Your task to perform on an android device: Open the calendar app, open the side menu, and click the "Day" option Image 0: 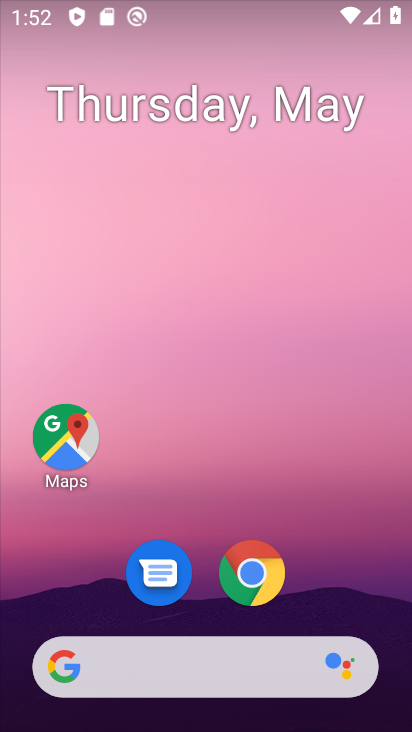
Step 0: drag from (110, 455) to (193, 82)
Your task to perform on an android device: Open the calendar app, open the side menu, and click the "Day" option Image 1: 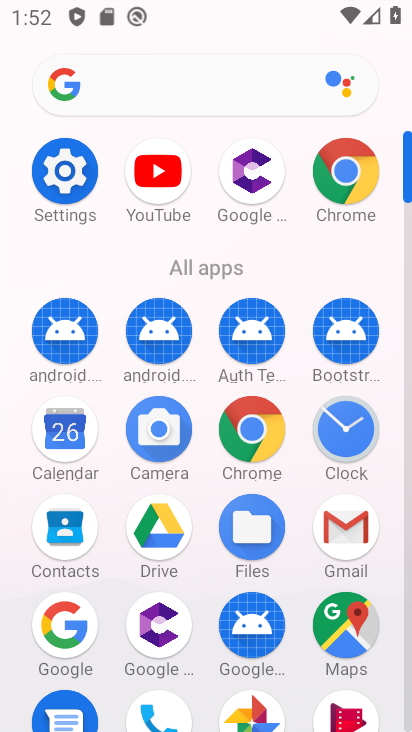
Step 1: click (74, 453)
Your task to perform on an android device: Open the calendar app, open the side menu, and click the "Day" option Image 2: 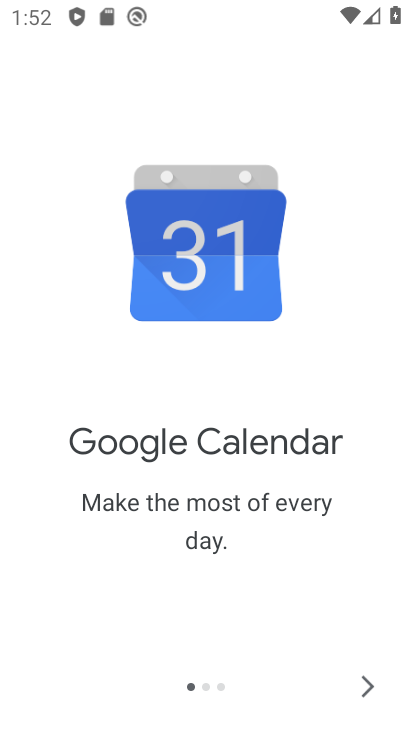
Step 2: click (377, 704)
Your task to perform on an android device: Open the calendar app, open the side menu, and click the "Day" option Image 3: 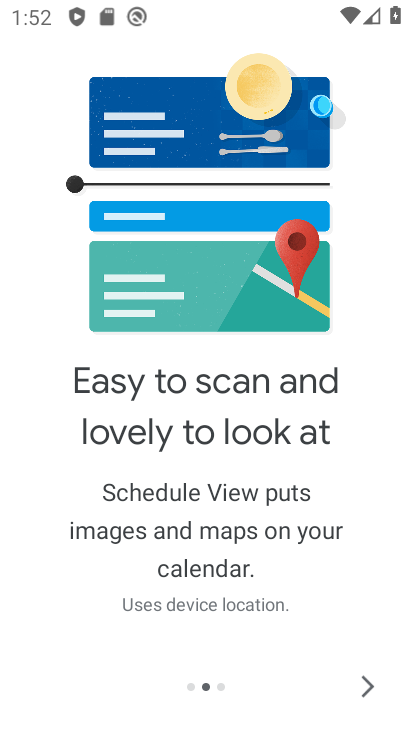
Step 3: click (362, 680)
Your task to perform on an android device: Open the calendar app, open the side menu, and click the "Day" option Image 4: 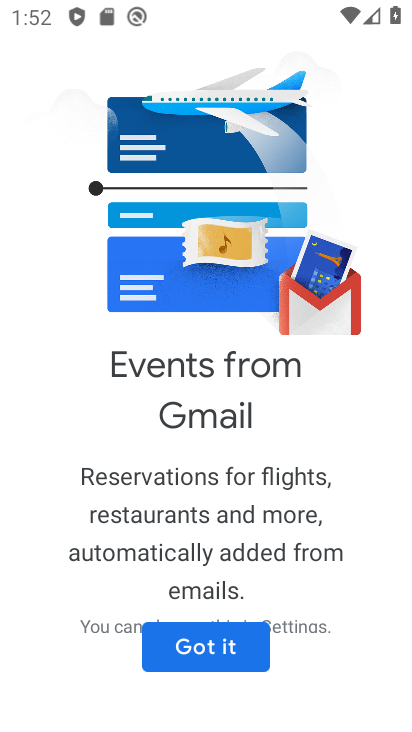
Step 4: click (222, 659)
Your task to perform on an android device: Open the calendar app, open the side menu, and click the "Day" option Image 5: 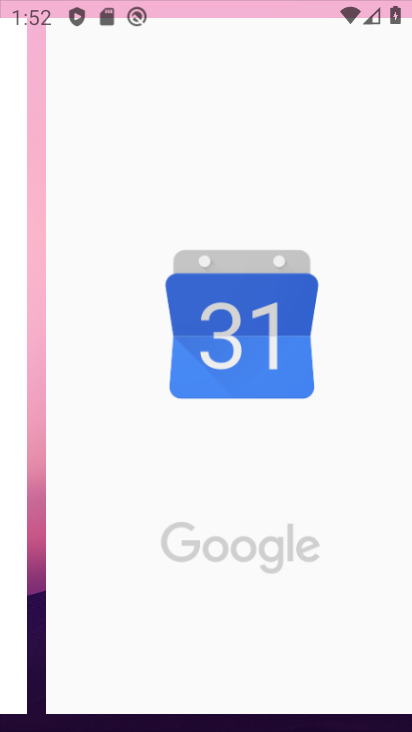
Step 5: click (222, 659)
Your task to perform on an android device: Open the calendar app, open the side menu, and click the "Day" option Image 6: 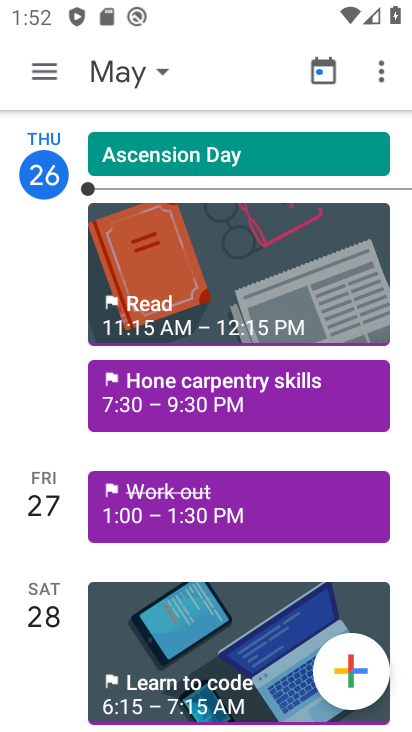
Step 6: click (52, 90)
Your task to perform on an android device: Open the calendar app, open the side menu, and click the "Day" option Image 7: 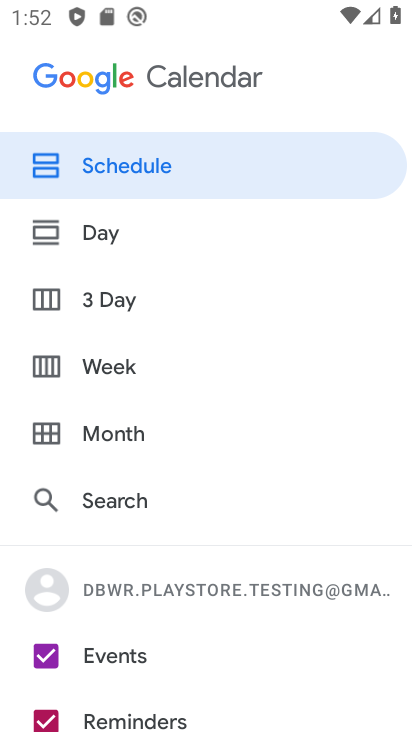
Step 7: click (153, 233)
Your task to perform on an android device: Open the calendar app, open the side menu, and click the "Day" option Image 8: 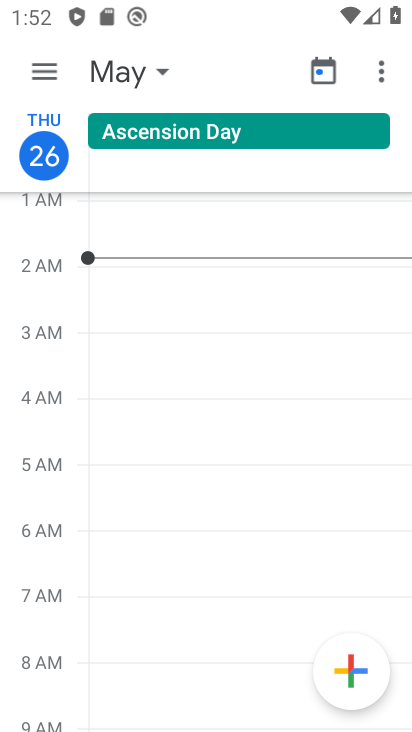
Step 8: task complete